Your task to perform on an android device: Go to Yahoo.com Image 0: 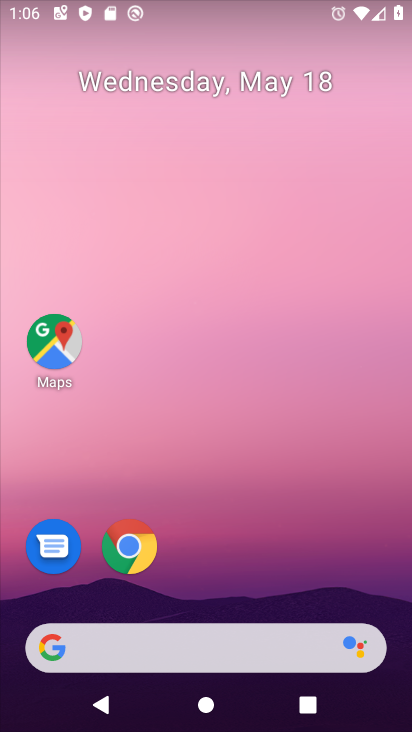
Step 0: click (144, 563)
Your task to perform on an android device: Go to Yahoo.com Image 1: 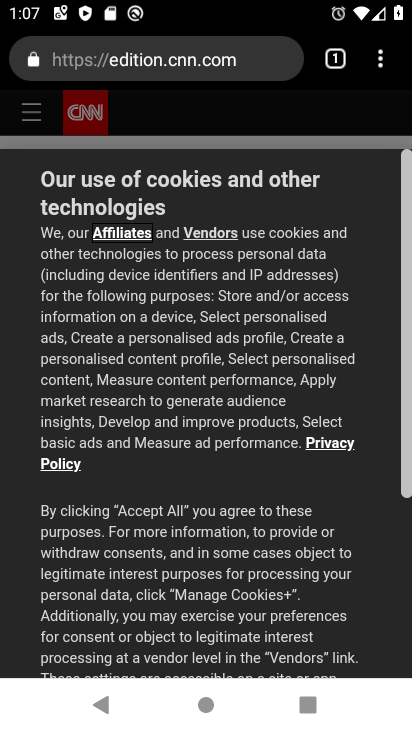
Step 1: click (192, 67)
Your task to perform on an android device: Go to Yahoo.com Image 2: 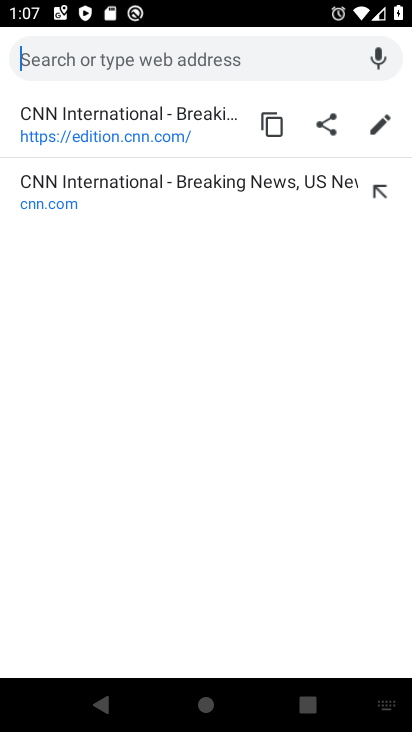
Step 2: type "yahoo"
Your task to perform on an android device: Go to Yahoo.com Image 3: 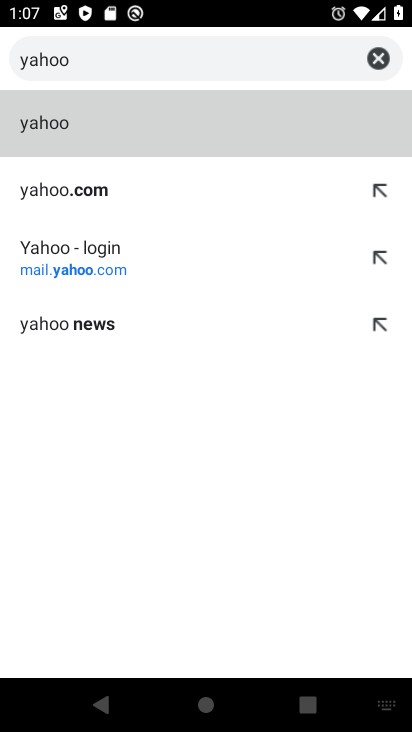
Step 3: click (170, 189)
Your task to perform on an android device: Go to Yahoo.com Image 4: 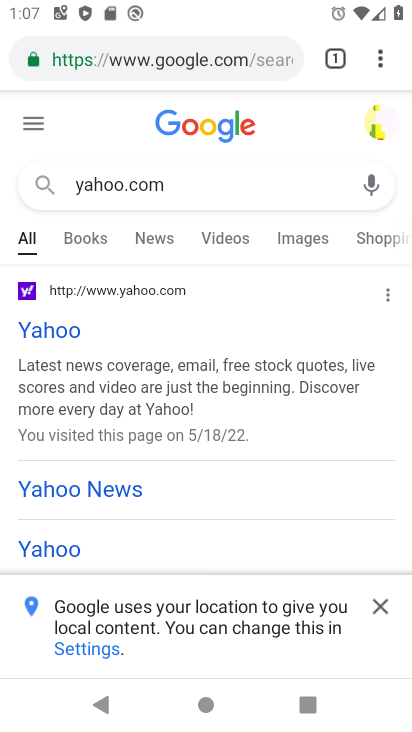
Step 4: click (60, 343)
Your task to perform on an android device: Go to Yahoo.com Image 5: 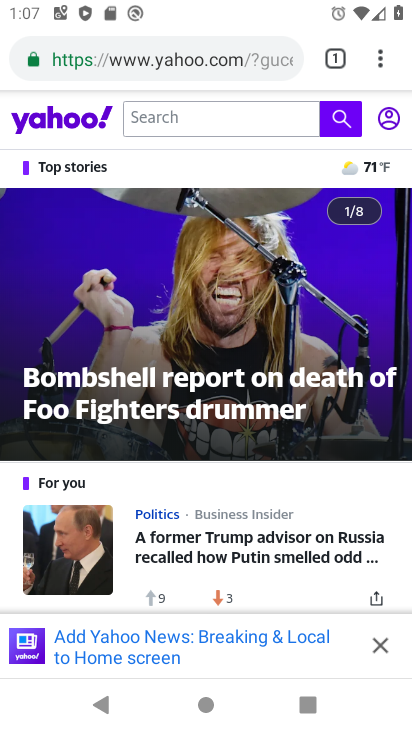
Step 5: task complete